Your task to perform on an android device: Open battery settings Image 0: 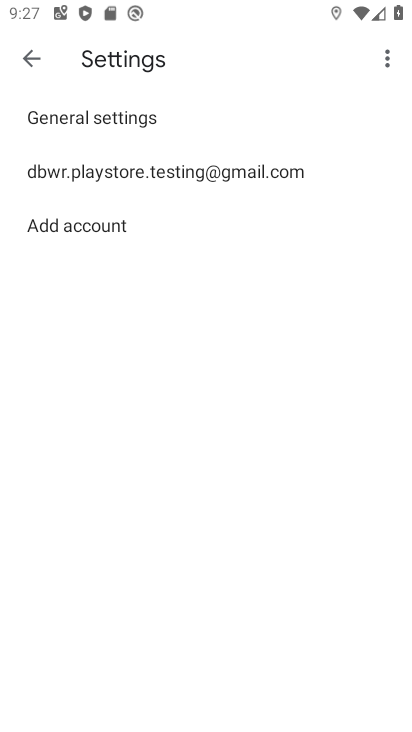
Step 0: press home button
Your task to perform on an android device: Open battery settings Image 1: 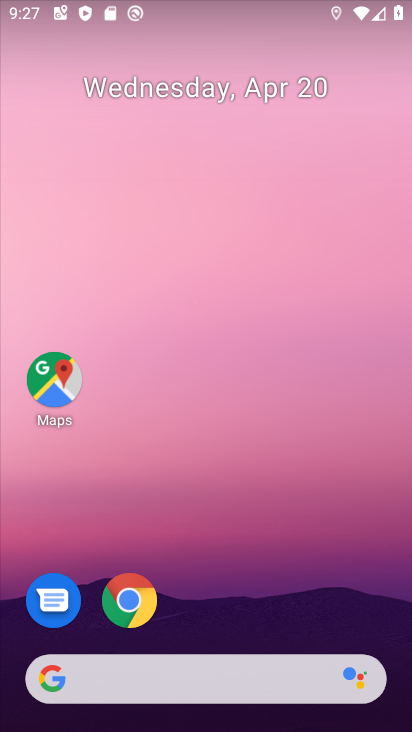
Step 1: drag from (192, 629) to (146, 14)
Your task to perform on an android device: Open battery settings Image 2: 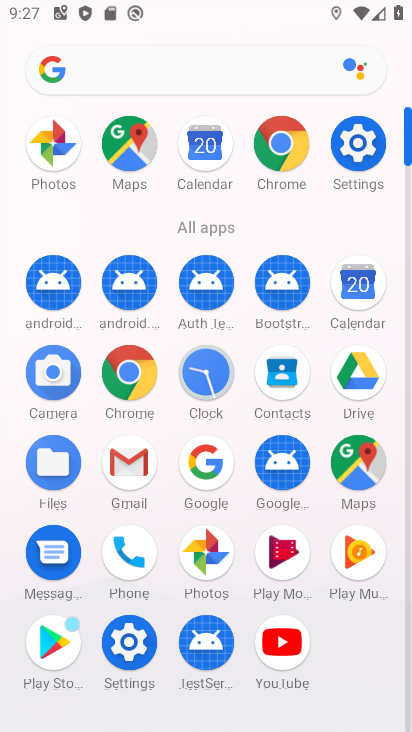
Step 2: click (352, 149)
Your task to perform on an android device: Open battery settings Image 3: 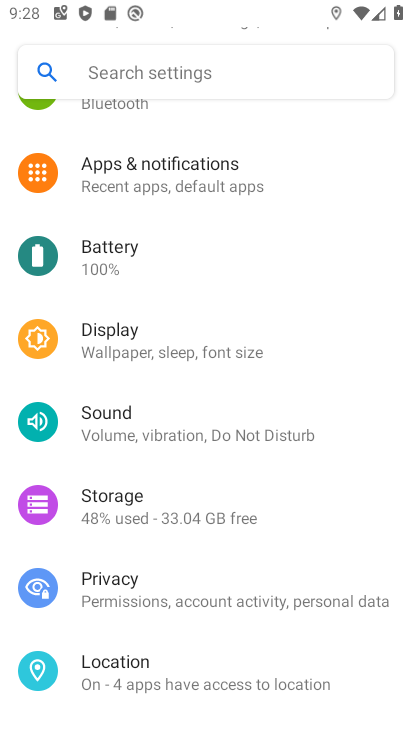
Step 3: click (114, 265)
Your task to perform on an android device: Open battery settings Image 4: 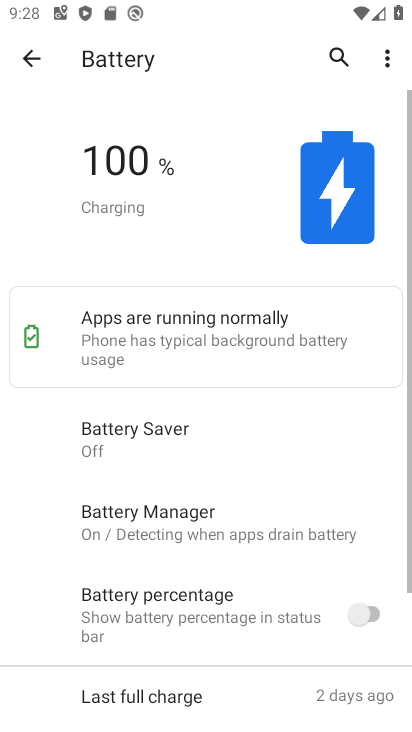
Step 4: task complete